Your task to perform on an android device: add a contact Image 0: 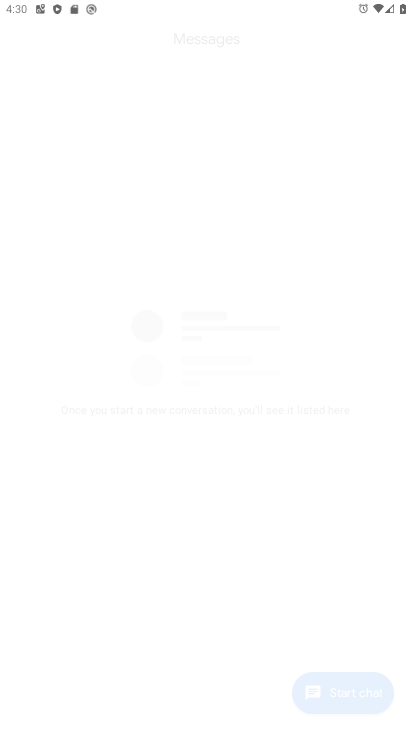
Step 0: click (48, 410)
Your task to perform on an android device: add a contact Image 1: 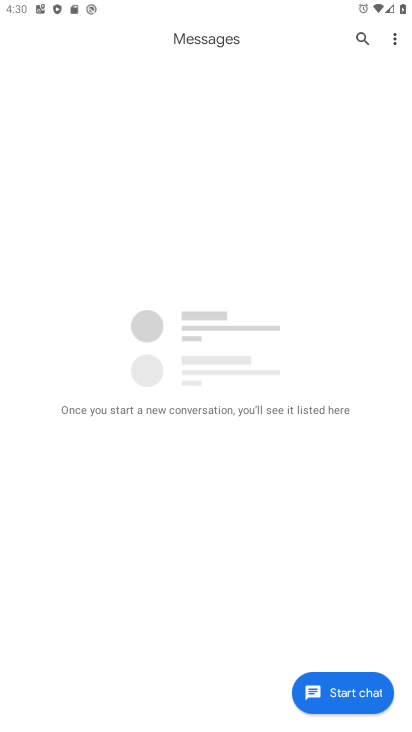
Step 1: press home button
Your task to perform on an android device: add a contact Image 2: 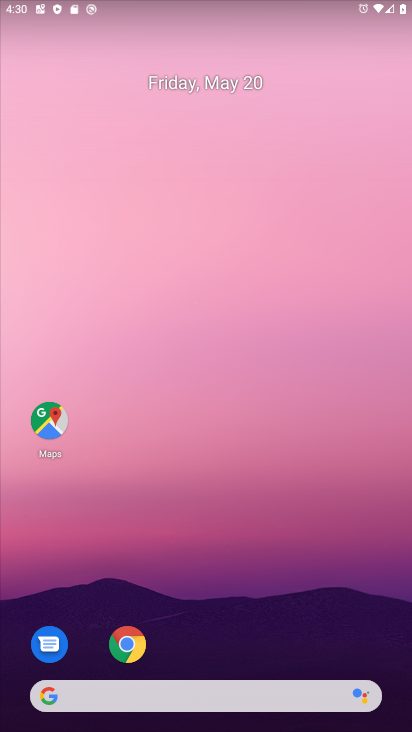
Step 2: drag from (212, 642) to (233, 37)
Your task to perform on an android device: add a contact Image 3: 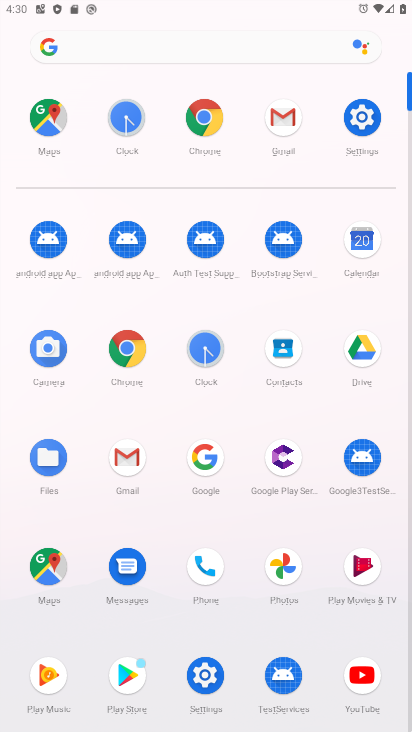
Step 3: click (288, 370)
Your task to perform on an android device: add a contact Image 4: 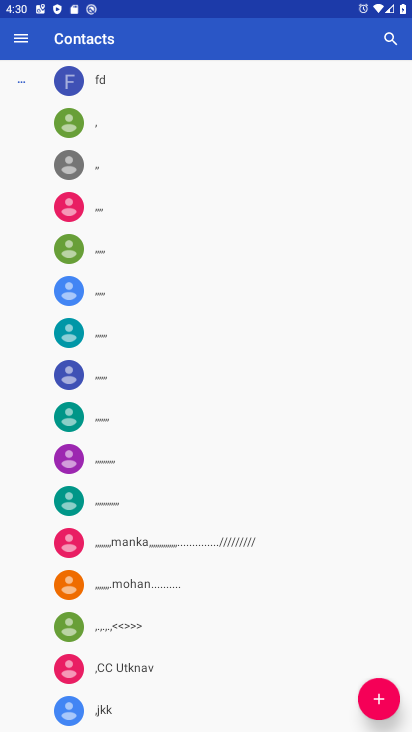
Step 4: click (378, 696)
Your task to perform on an android device: add a contact Image 5: 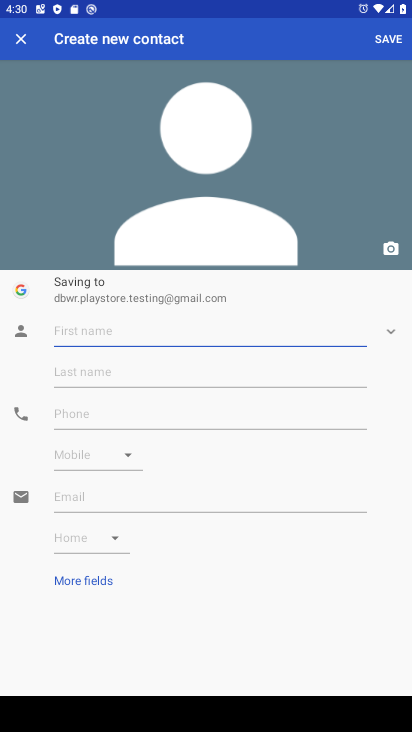
Step 5: type "asdcxdsc"
Your task to perform on an android device: add a contact Image 6: 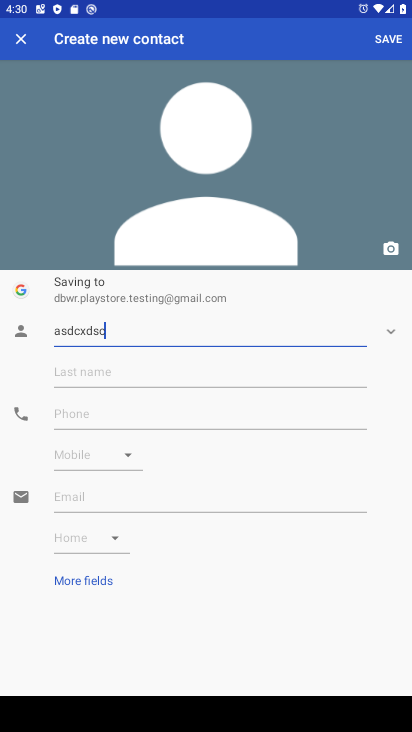
Step 6: click (191, 370)
Your task to perform on an android device: add a contact Image 7: 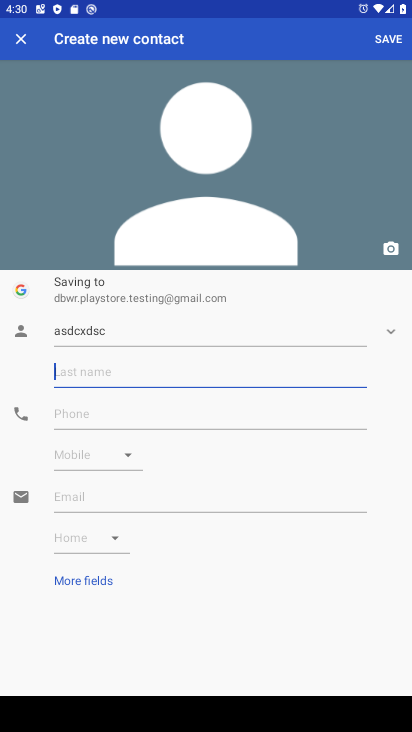
Step 7: type "SDDCs"
Your task to perform on an android device: add a contact Image 8: 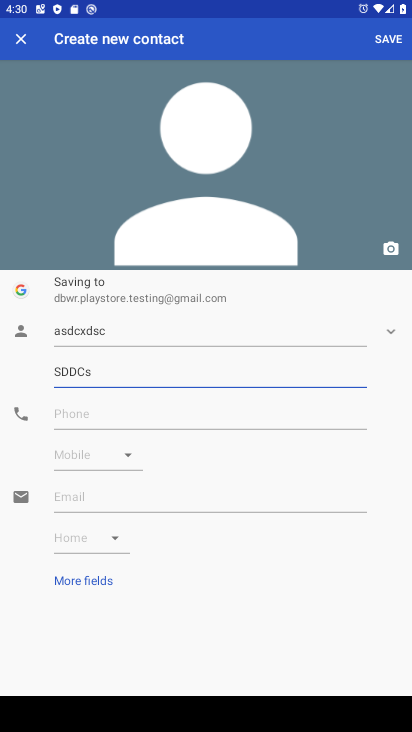
Step 8: click (74, 405)
Your task to perform on an android device: add a contact Image 9: 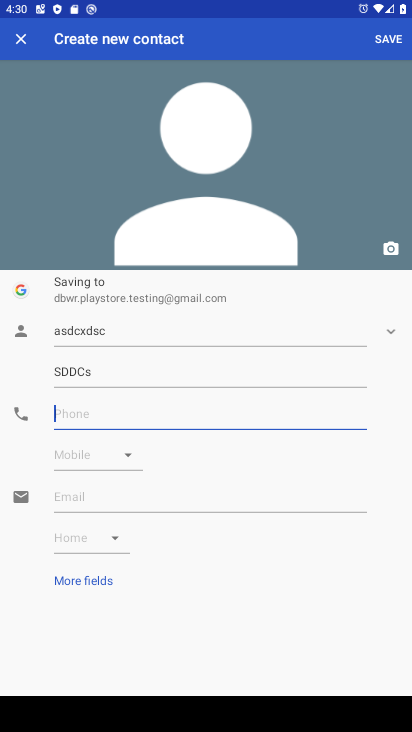
Step 9: type "3r3r345534534"
Your task to perform on an android device: add a contact Image 10: 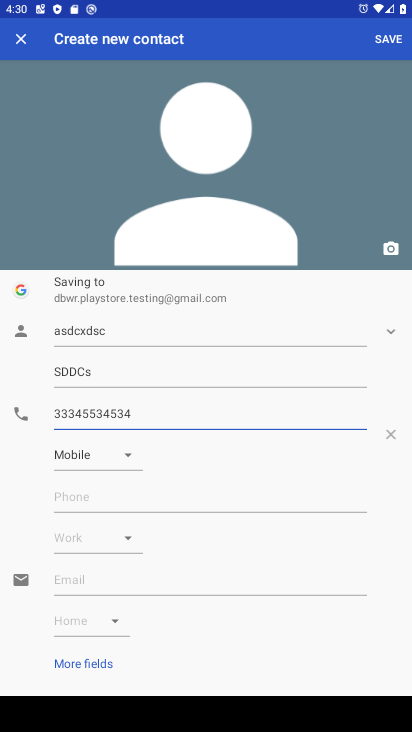
Step 10: click (383, 41)
Your task to perform on an android device: add a contact Image 11: 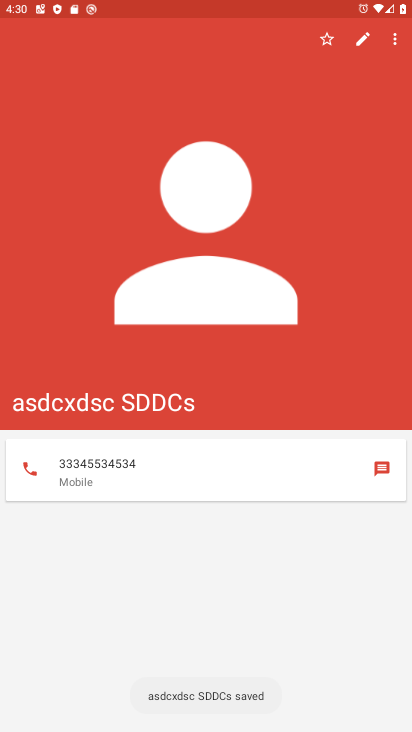
Step 11: task complete